Your task to perform on an android device: check android version Image 0: 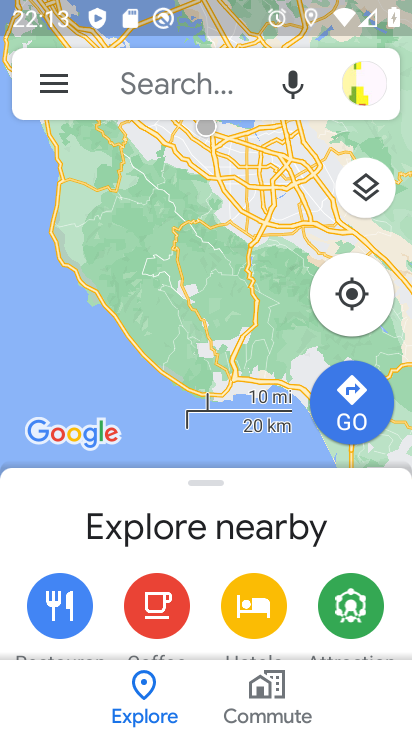
Step 0: press home button
Your task to perform on an android device: check android version Image 1: 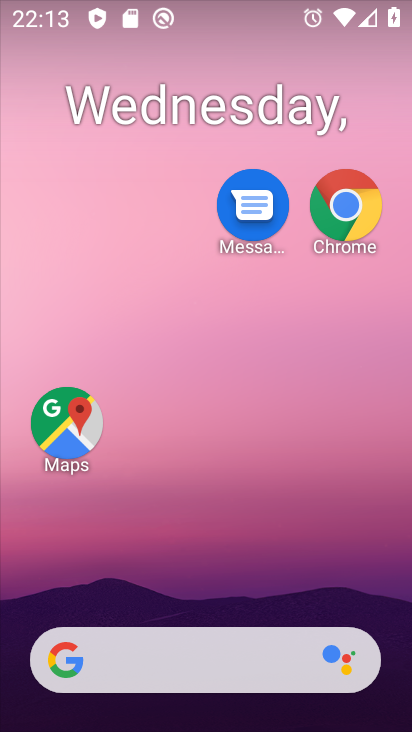
Step 1: drag from (235, 258) to (300, 0)
Your task to perform on an android device: check android version Image 2: 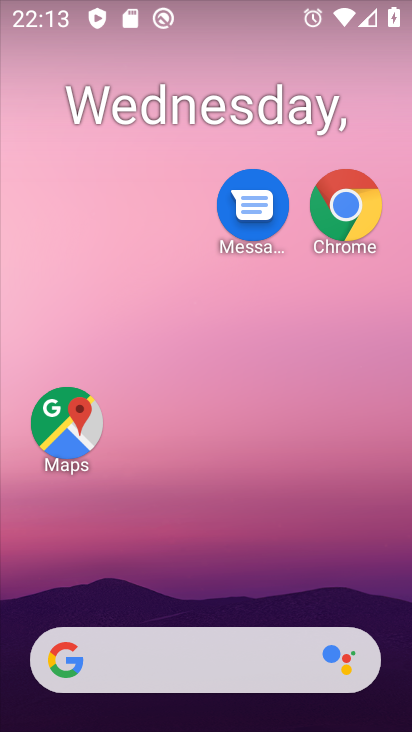
Step 2: drag from (239, 554) to (376, 17)
Your task to perform on an android device: check android version Image 3: 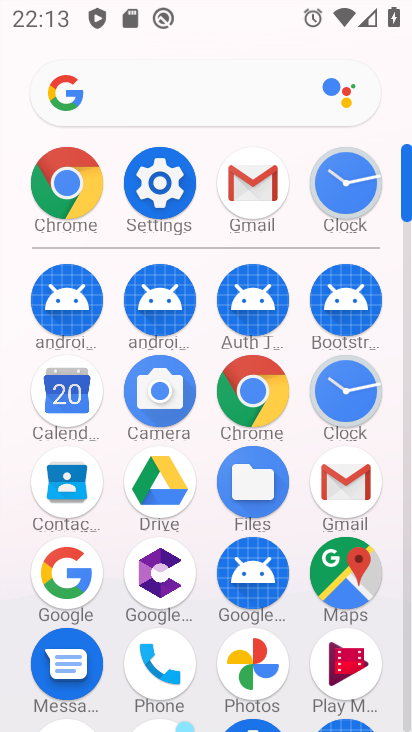
Step 3: click (152, 181)
Your task to perform on an android device: check android version Image 4: 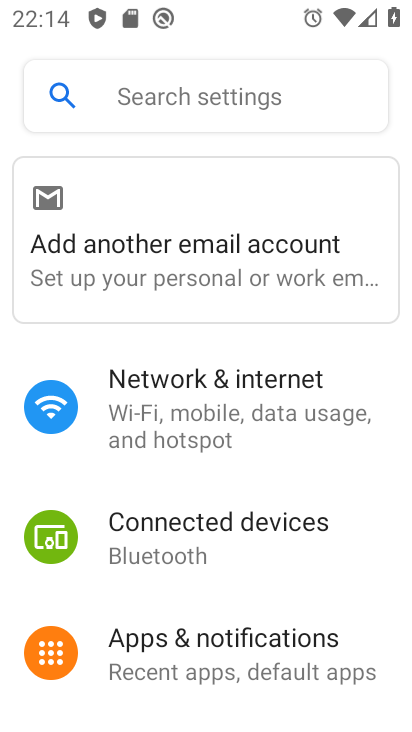
Step 4: drag from (221, 538) to (361, 20)
Your task to perform on an android device: check android version Image 5: 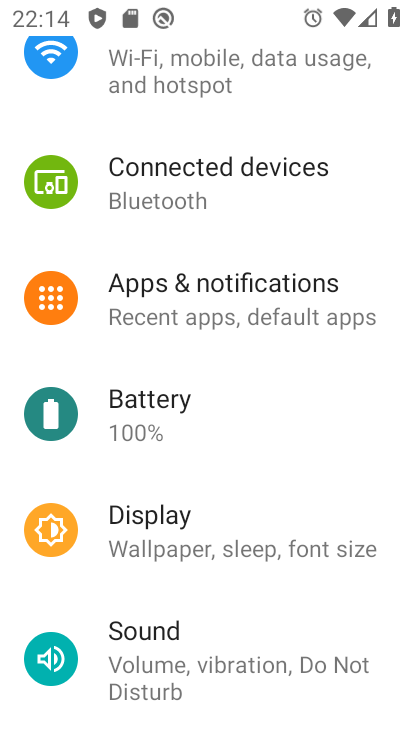
Step 5: drag from (185, 657) to (321, 11)
Your task to perform on an android device: check android version Image 6: 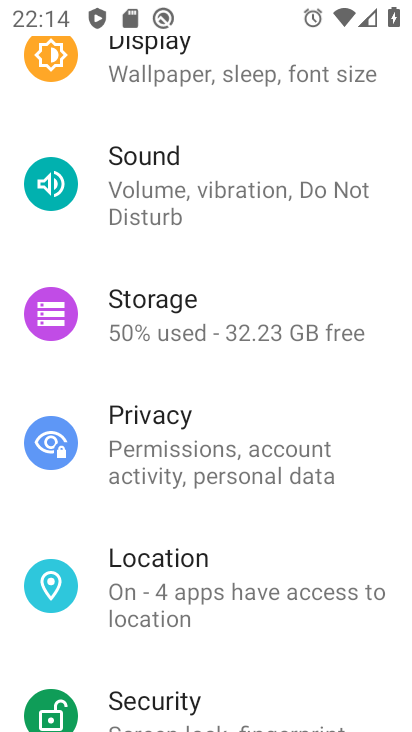
Step 6: drag from (183, 635) to (283, 11)
Your task to perform on an android device: check android version Image 7: 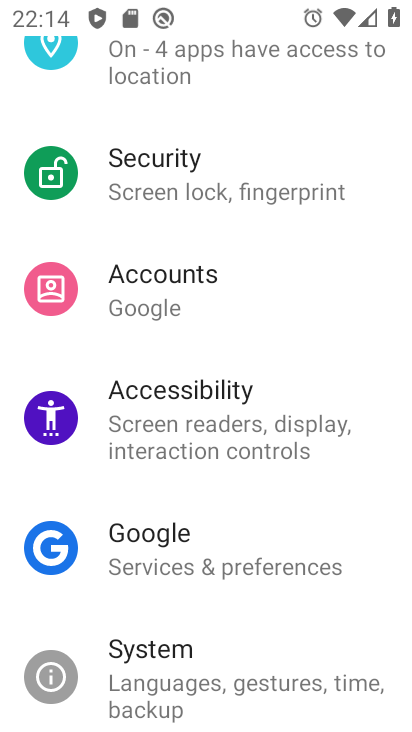
Step 7: drag from (199, 663) to (266, 125)
Your task to perform on an android device: check android version Image 8: 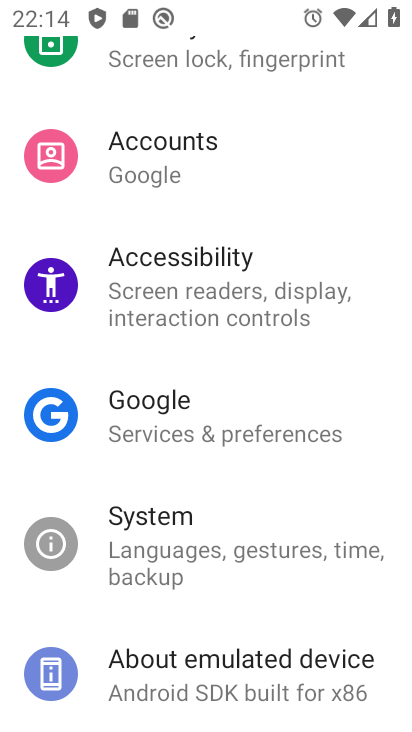
Step 8: click (167, 669)
Your task to perform on an android device: check android version Image 9: 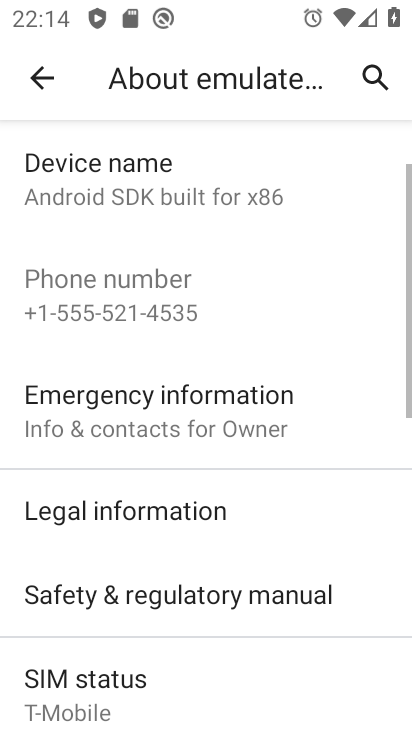
Step 9: drag from (192, 677) to (403, 491)
Your task to perform on an android device: check android version Image 10: 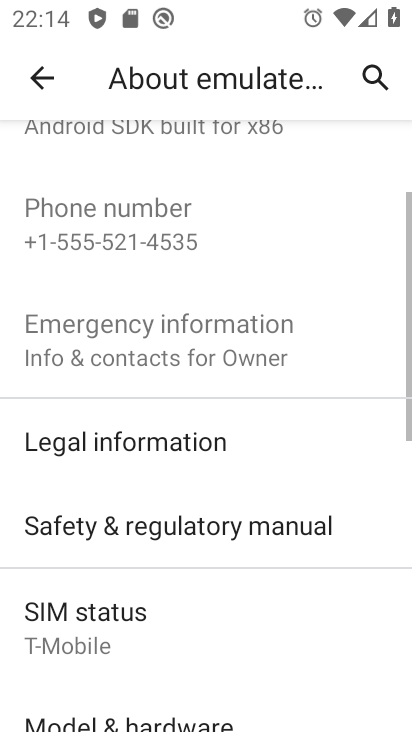
Step 10: drag from (180, 631) to (227, 326)
Your task to perform on an android device: check android version Image 11: 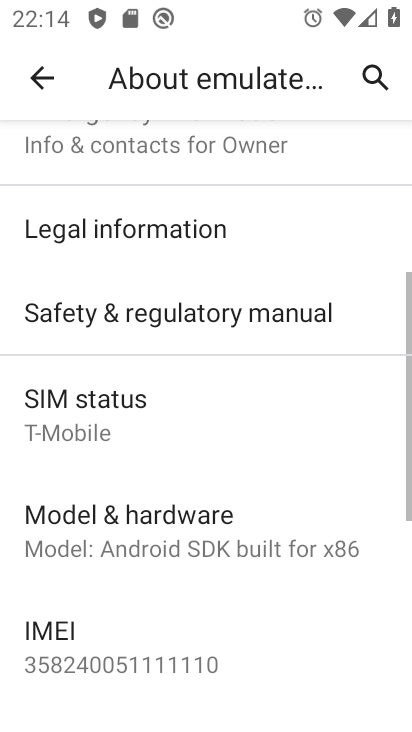
Step 11: drag from (158, 530) to (229, 83)
Your task to perform on an android device: check android version Image 12: 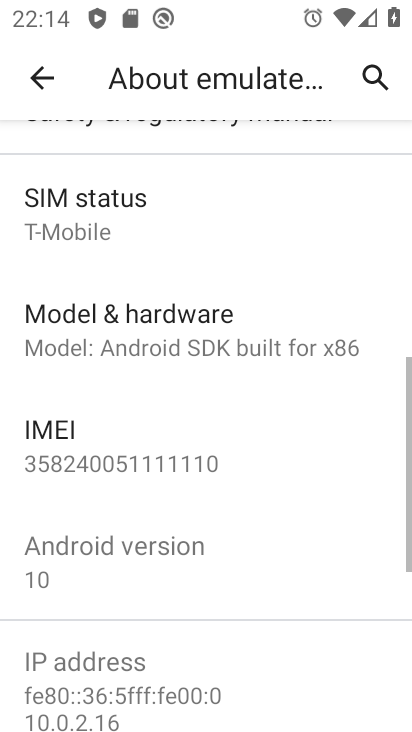
Step 12: click (150, 564)
Your task to perform on an android device: check android version Image 13: 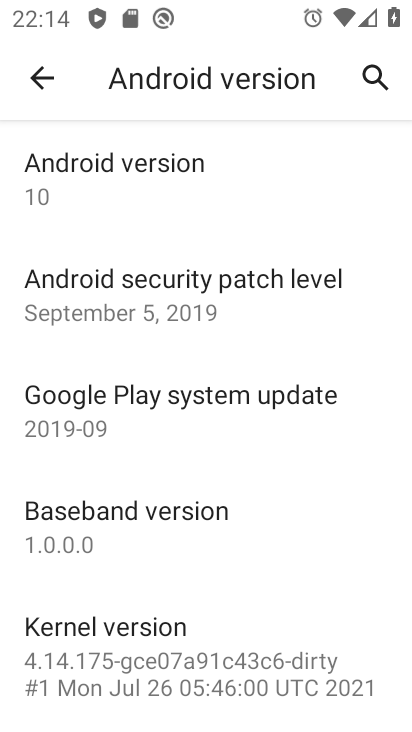
Step 13: task complete